Your task to perform on an android device: create a new album in the google photos Image 0: 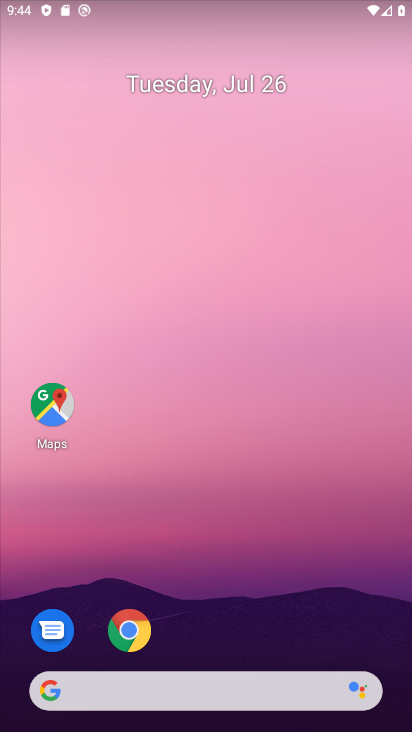
Step 0: drag from (388, 630) to (357, 129)
Your task to perform on an android device: create a new album in the google photos Image 1: 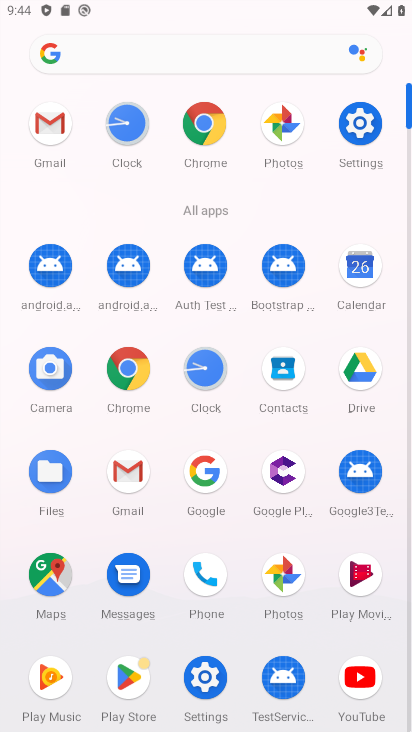
Step 1: click (282, 572)
Your task to perform on an android device: create a new album in the google photos Image 2: 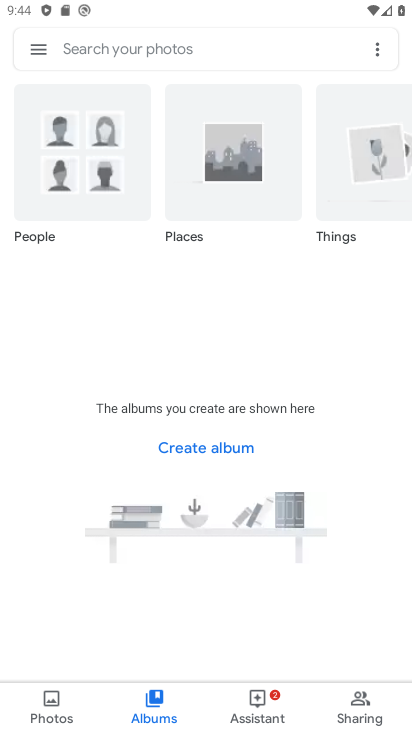
Step 2: click (203, 447)
Your task to perform on an android device: create a new album in the google photos Image 3: 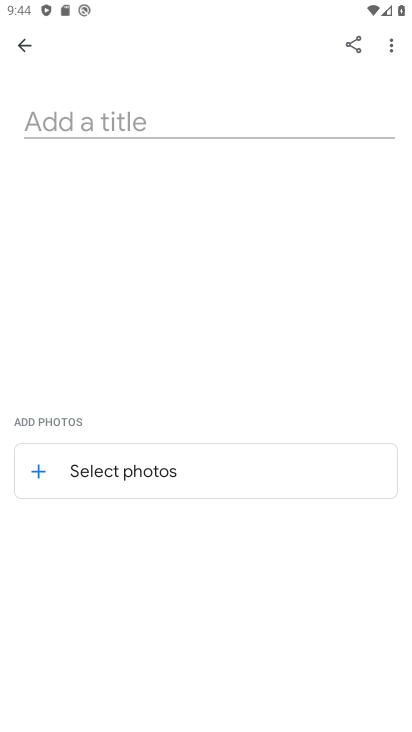
Step 3: click (91, 119)
Your task to perform on an android device: create a new album in the google photos Image 4: 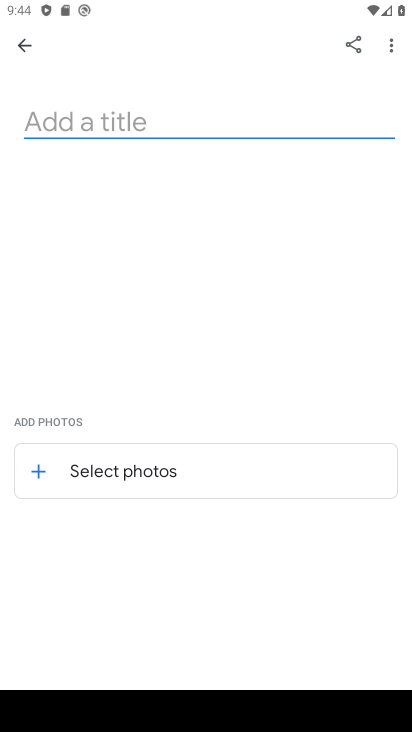
Step 4: type "bvhhggh"
Your task to perform on an android device: create a new album in the google photos Image 5: 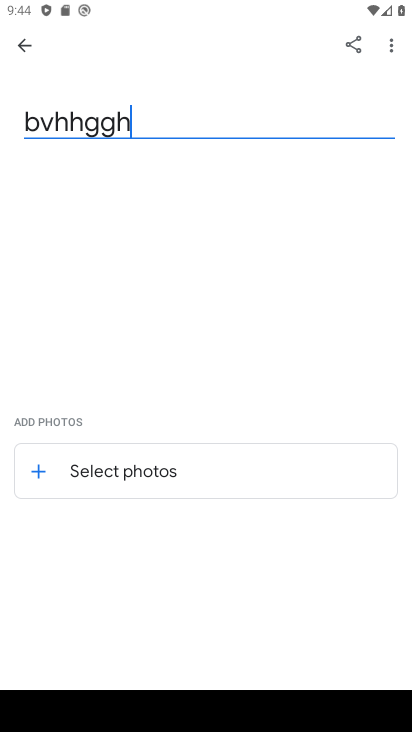
Step 5: click (38, 466)
Your task to perform on an android device: create a new album in the google photos Image 6: 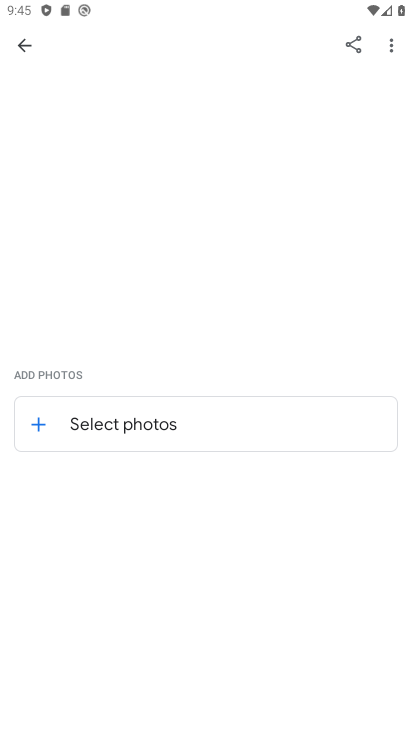
Step 6: click (38, 421)
Your task to perform on an android device: create a new album in the google photos Image 7: 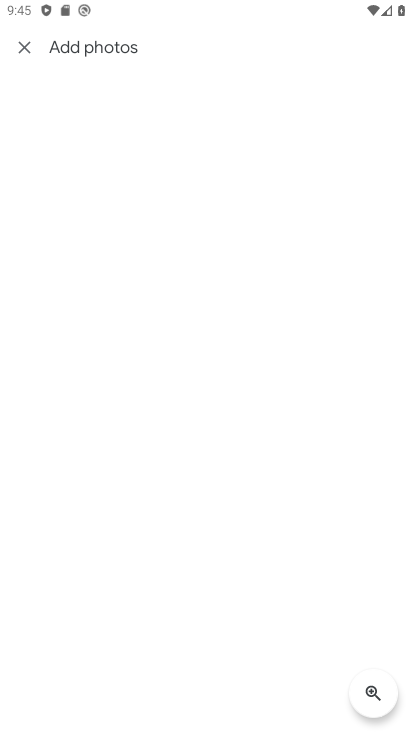
Step 7: task complete